Your task to perform on an android device: Empty the shopping cart on target.com. Image 0: 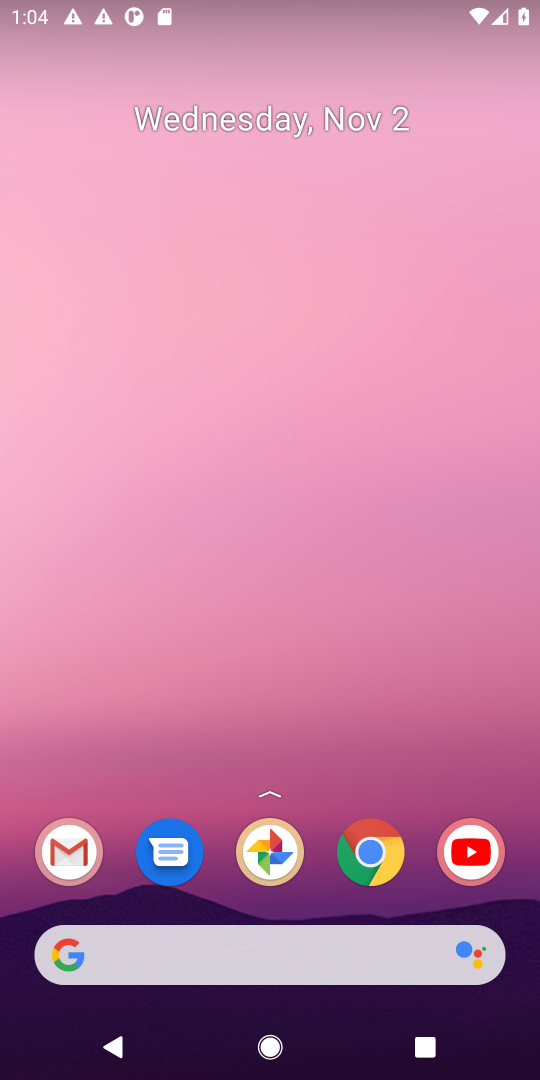
Step 0: press home button
Your task to perform on an android device: Empty the shopping cart on target.com. Image 1: 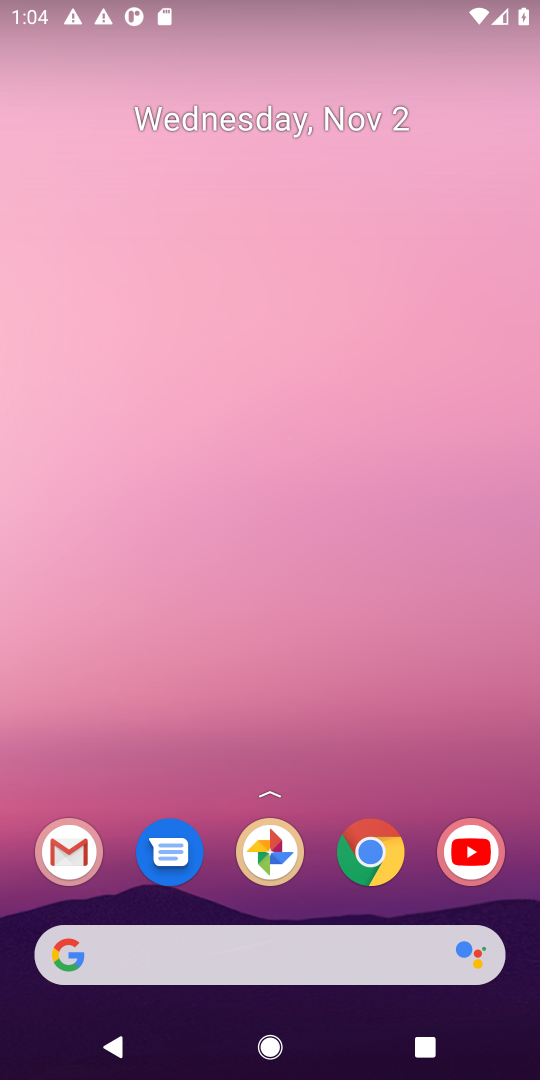
Step 1: click (78, 961)
Your task to perform on an android device: Empty the shopping cart on target.com. Image 2: 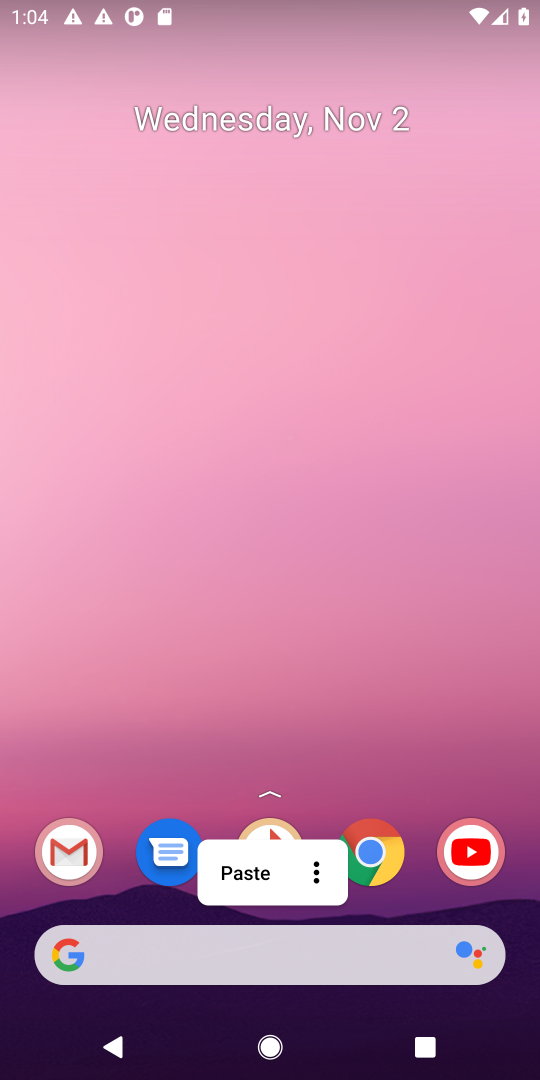
Step 2: click (74, 956)
Your task to perform on an android device: Empty the shopping cart on target.com. Image 3: 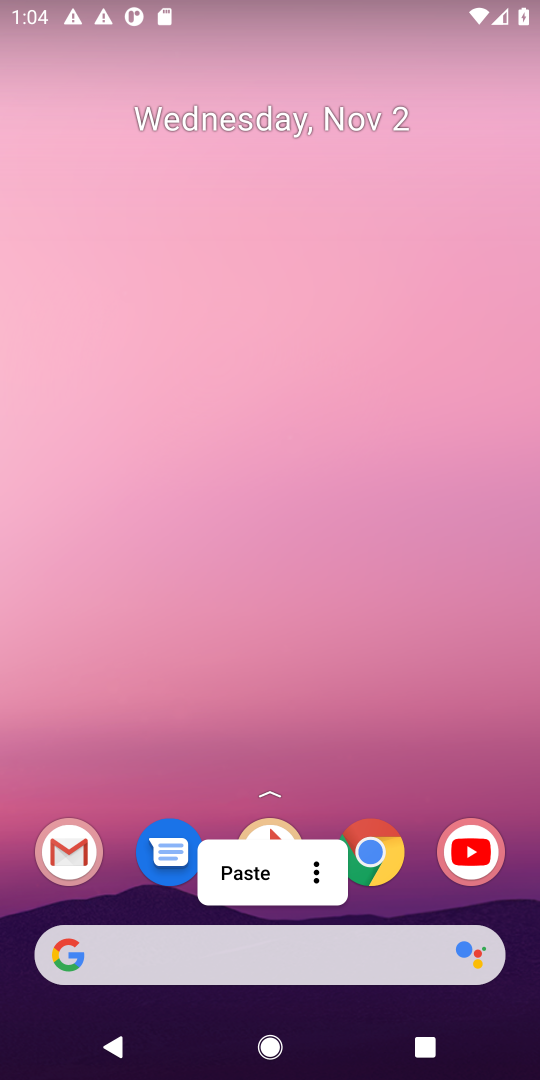
Step 3: click (57, 958)
Your task to perform on an android device: Empty the shopping cart on target.com. Image 4: 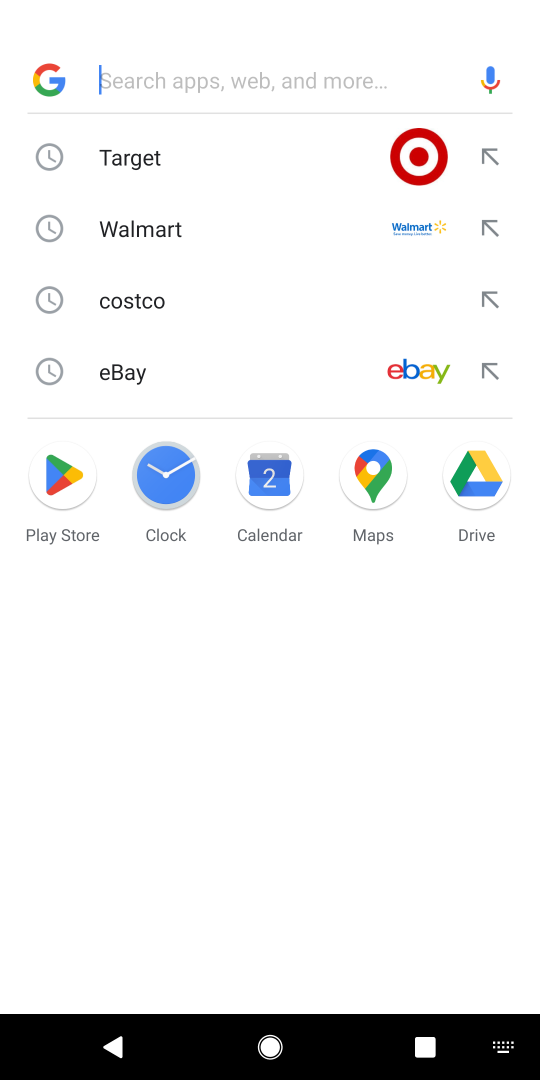
Step 4: click (409, 145)
Your task to perform on an android device: Empty the shopping cart on target.com. Image 5: 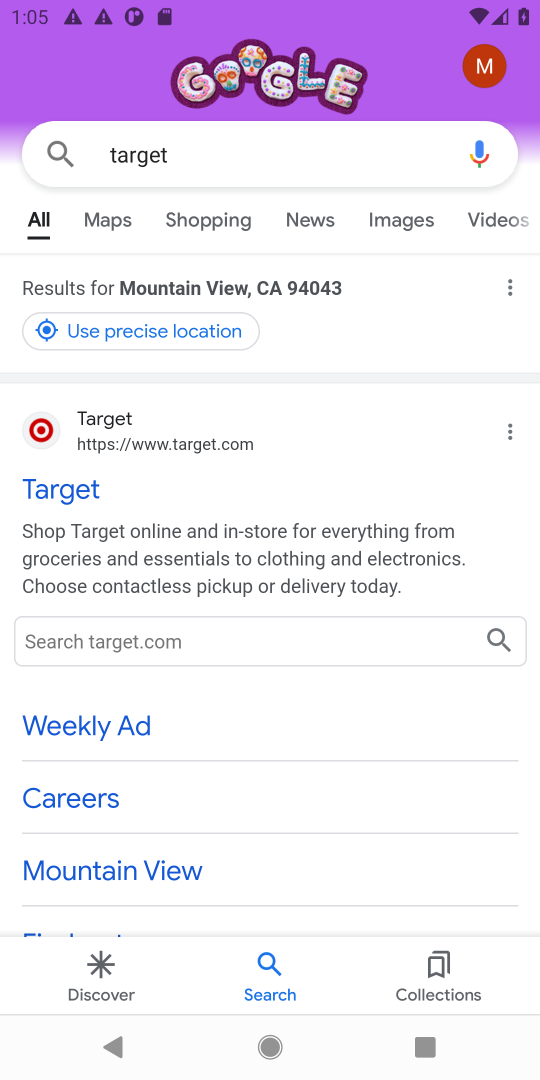
Step 5: click (73, 483)
Your task to perform on an android device: Empty the shopping cart on target.com. Image 6: 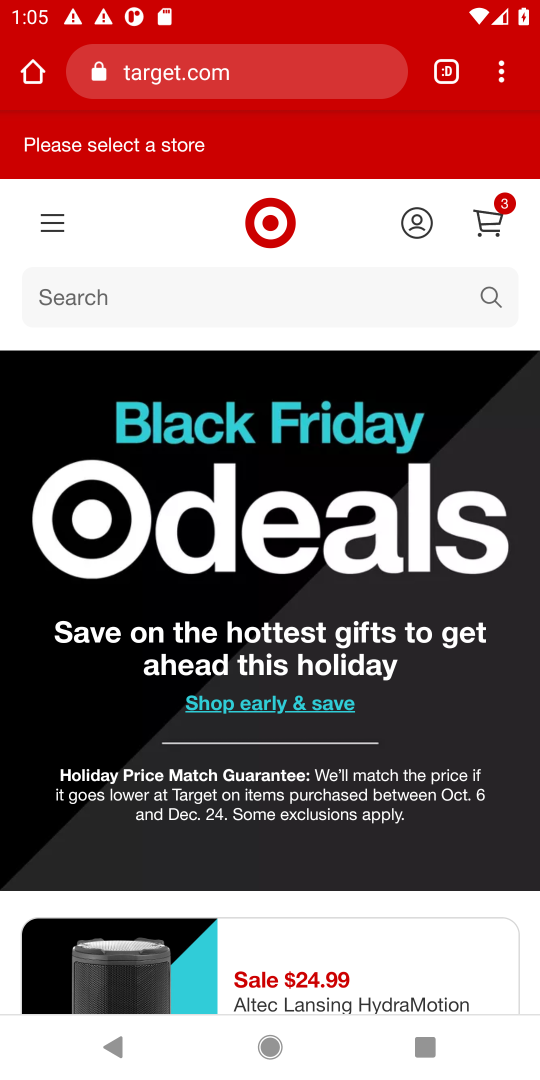
Step 6: click (499, 220)
Your task to perform on an android device: Empty the shopping cart on target.com. Image 7: 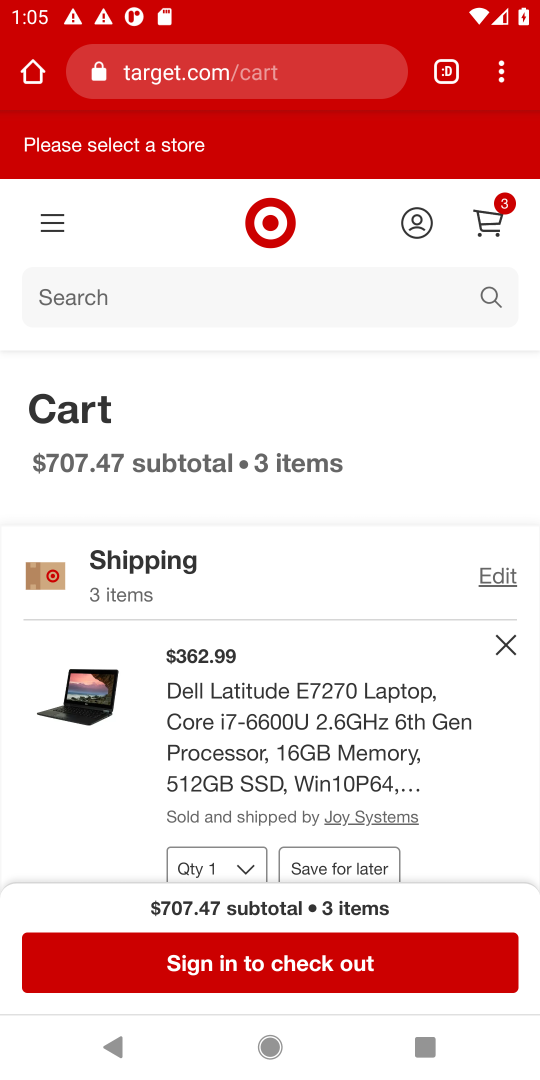
Step 7: click (491, 224)
Your task to perform on an android device: Empty the shopping cart on target.com. Image 8: 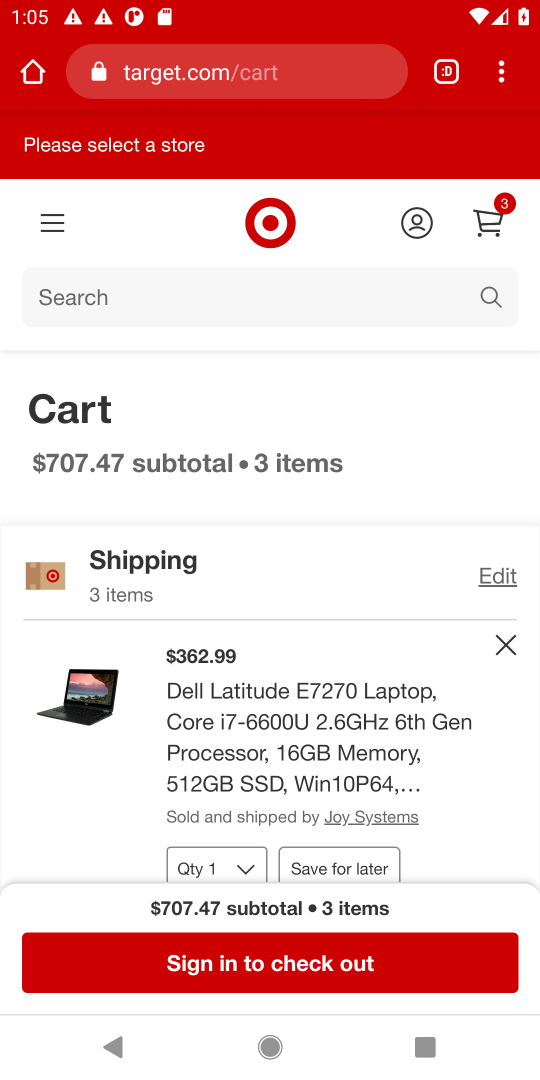
Step 8: click (481, 210)
Your task to perform on an android device: Empty the shopping cart on target.com. Image 9: 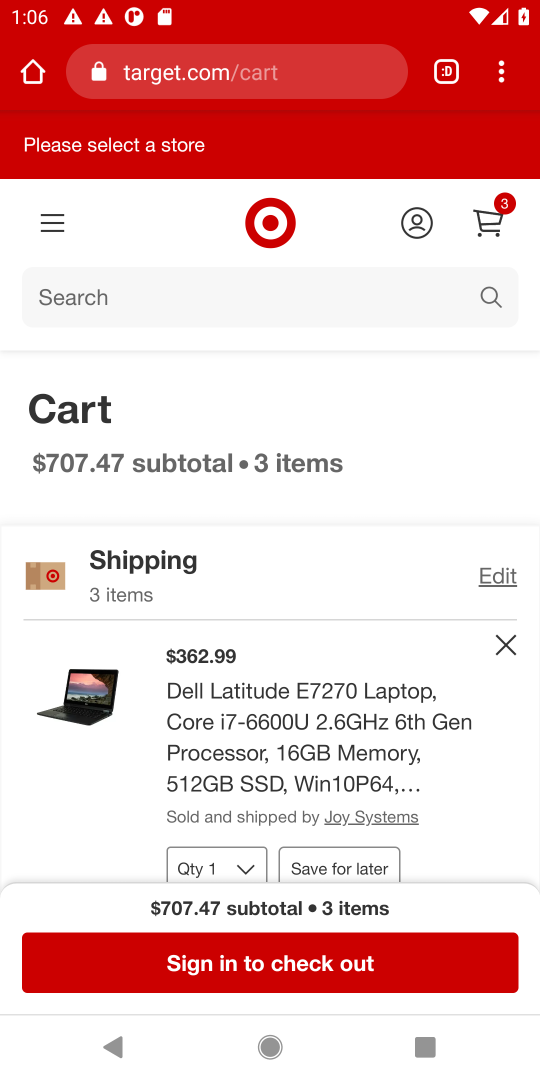
Step 9: click (506, 639)
Your task to perform on an android device: Empty the shopping cart on target.com. Image 10: 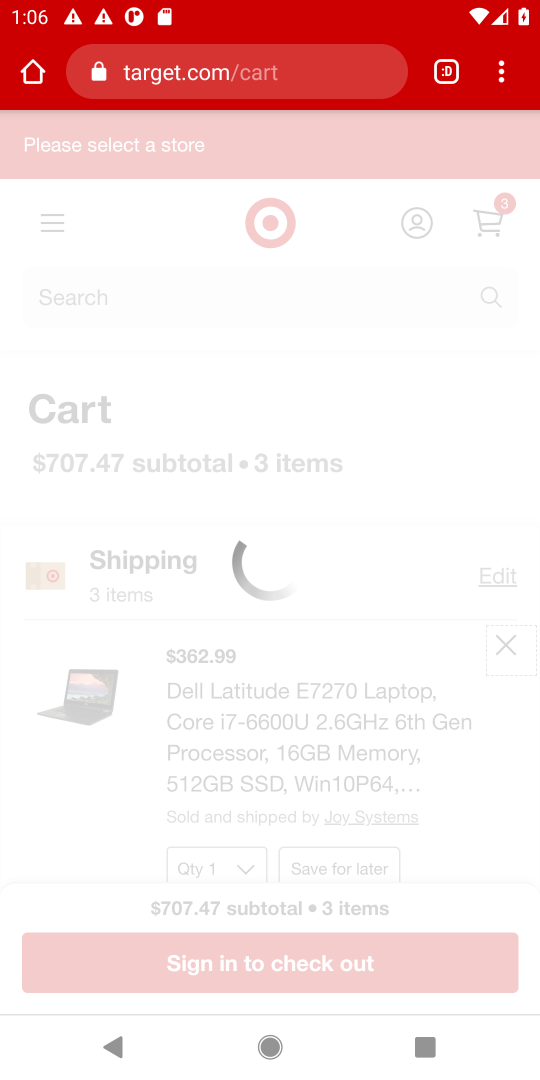
Step 10: click (504, 636)
Your task to perform on an android device: Empty the shopping cart on target.com. Image 11: 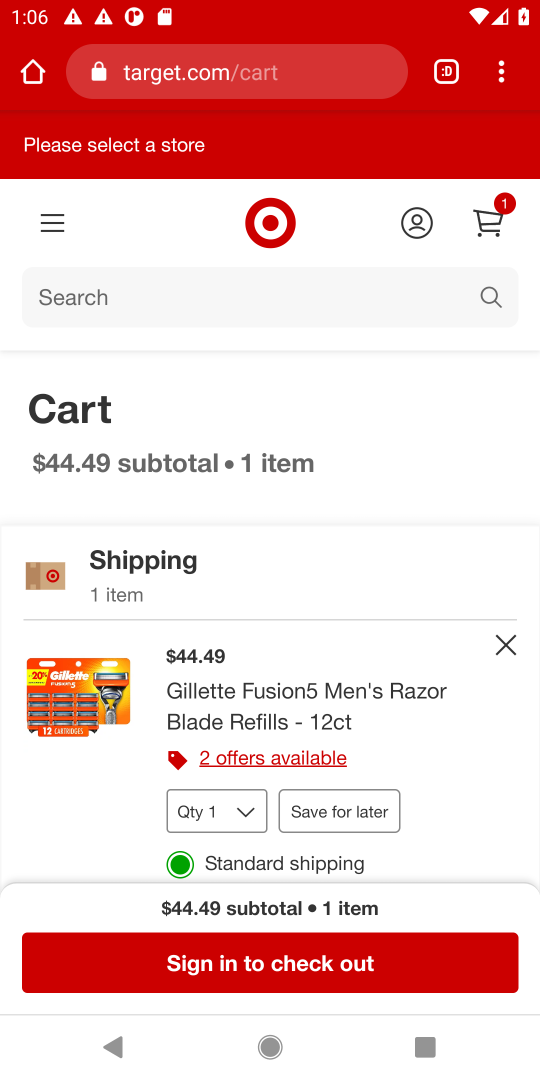
Step 11: click (505, 635)
Your task to perform on an android device: Empty the shopping cart on target.com. Image 12: 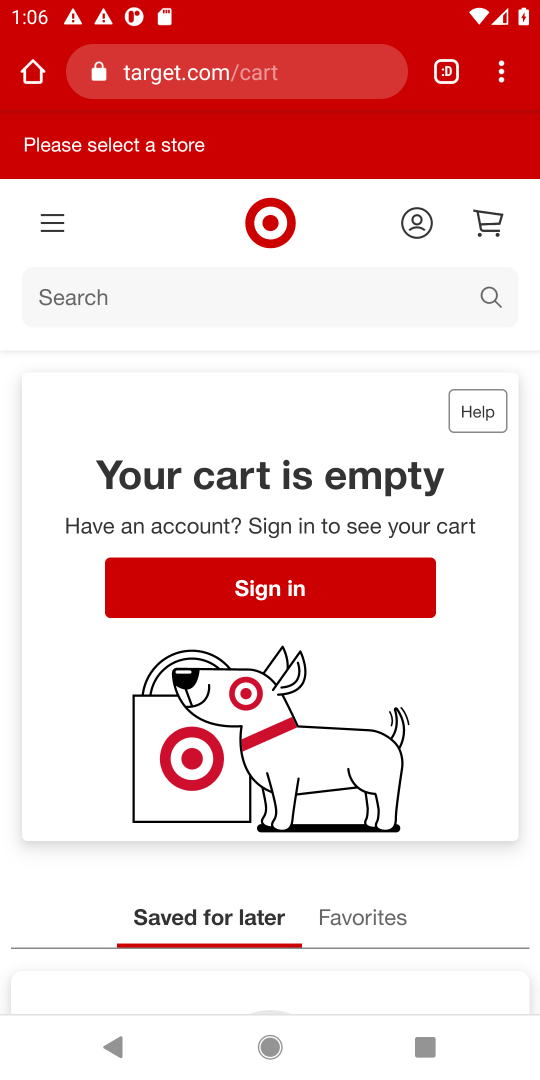
Step 12: task complete